Your task to perform on an android device: What's a good restaurant in San Diego? Image 0: 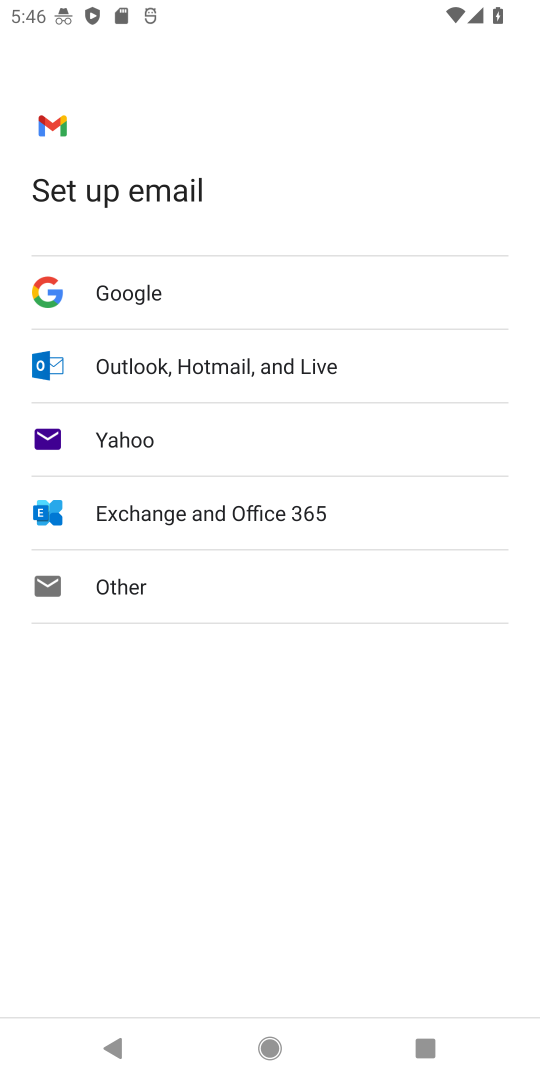
Step 0: press home button
Your task to perform on an android device: What's a good restaurant in San Diego? Image 1: 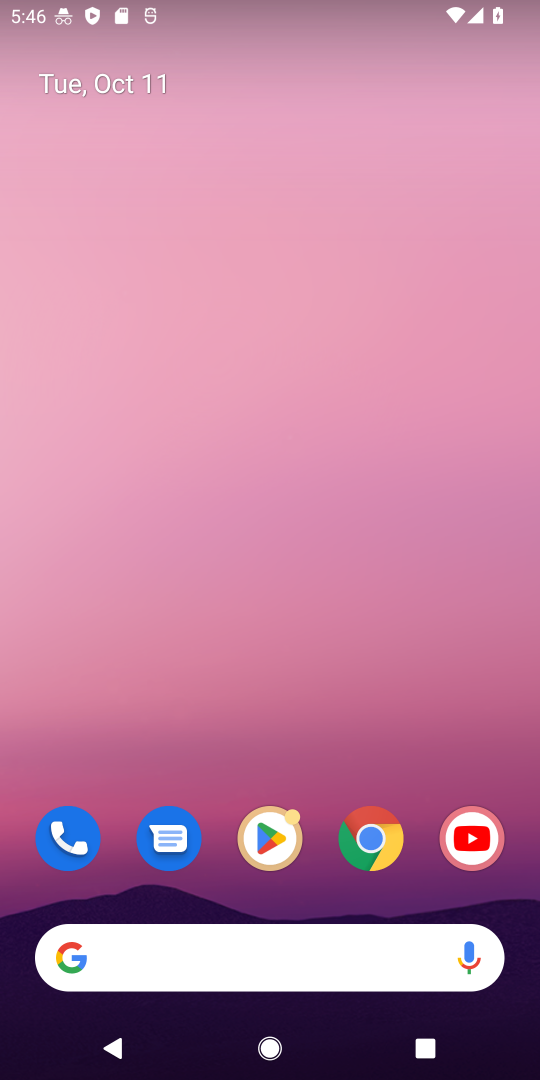
Step 1: click (377, 843)
Your task to perform on an android device: What's a good restaurant in San Diego? Image 2: 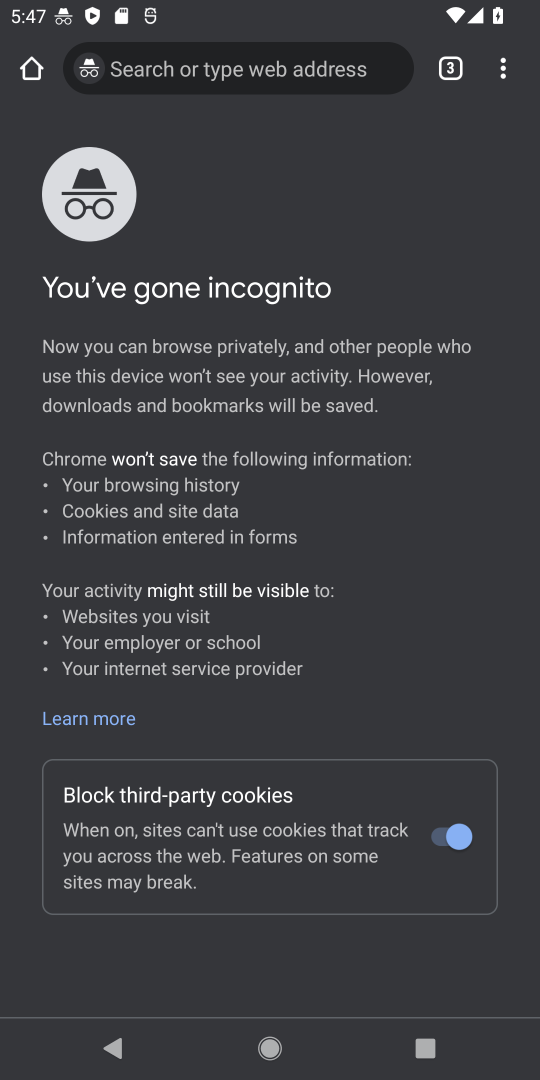
Step 2: click (455, 77)
Your task to perform on an android device: What's a good restaurant in San Diego? Image 3: 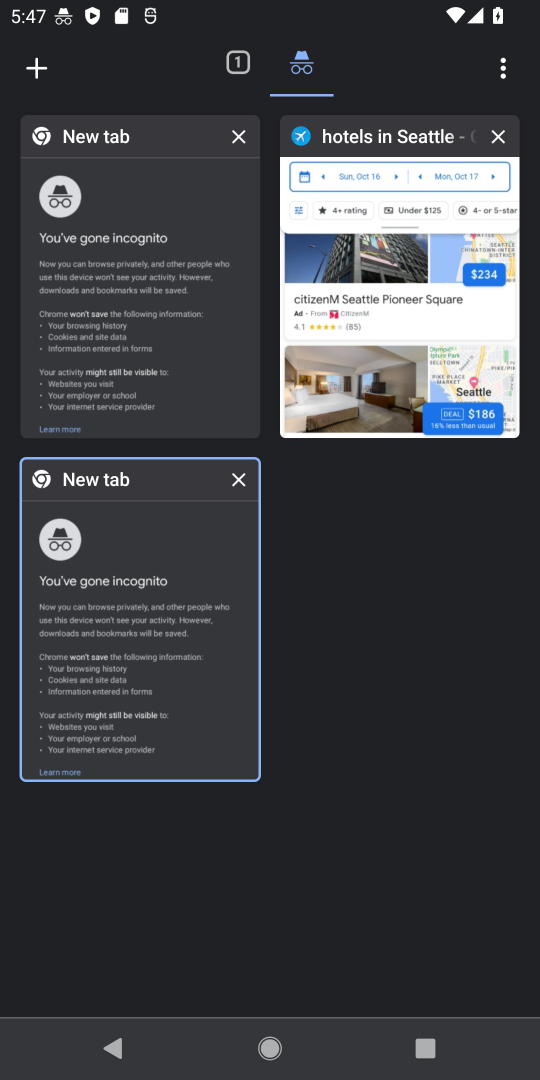
Step 3: click (238, 70)
Your task to perform on an android device: What's a good restaurant in San Diego? Image 4: 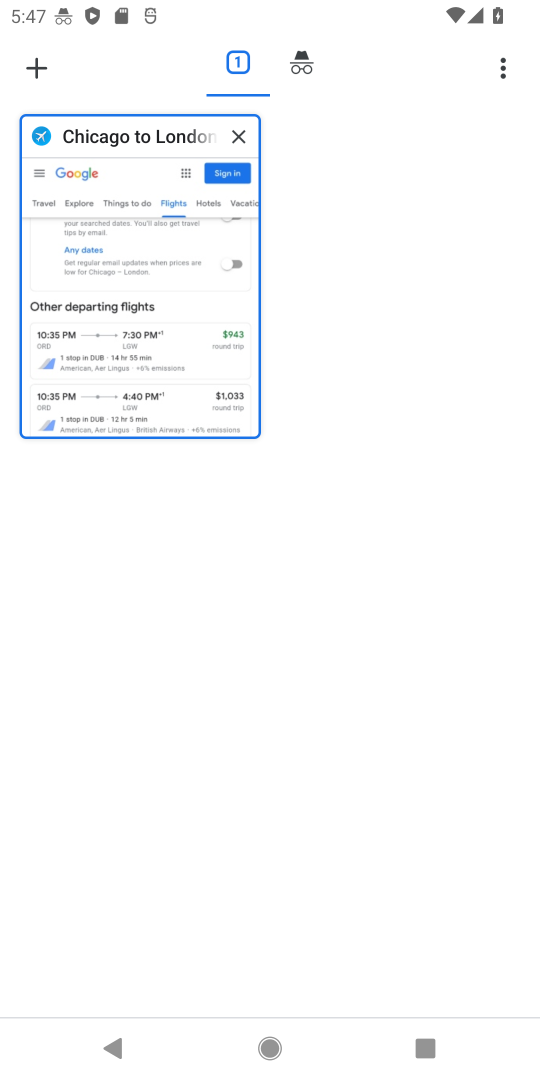
Step 4: click (163, 254)
Your task to perform on an android device: What's a good restaurant in San Diego? Image 5: 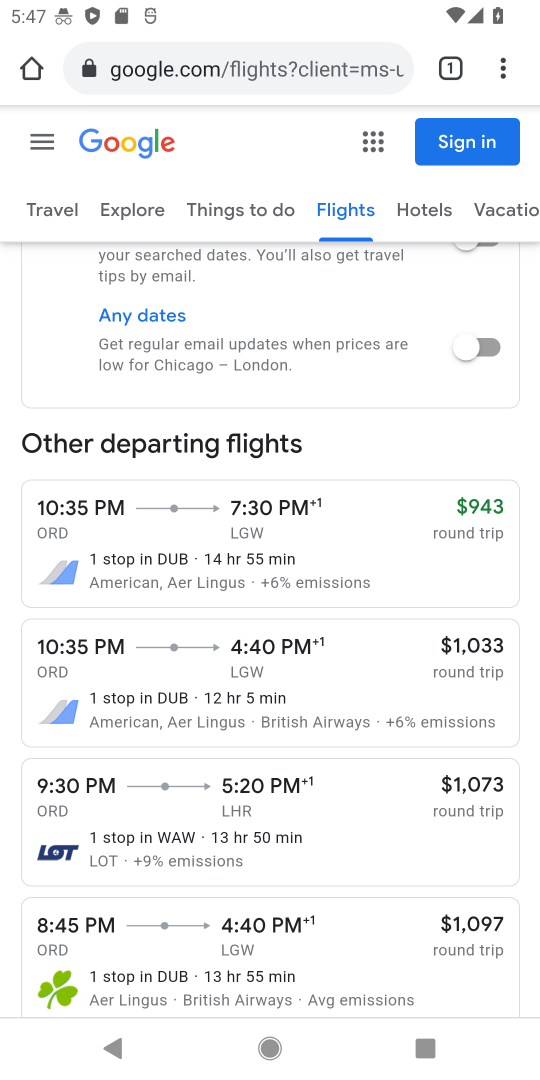
Step 5: click (257, 54)
Your task to perform on an android device: What's a good restaurant in San Diego? Image 6: 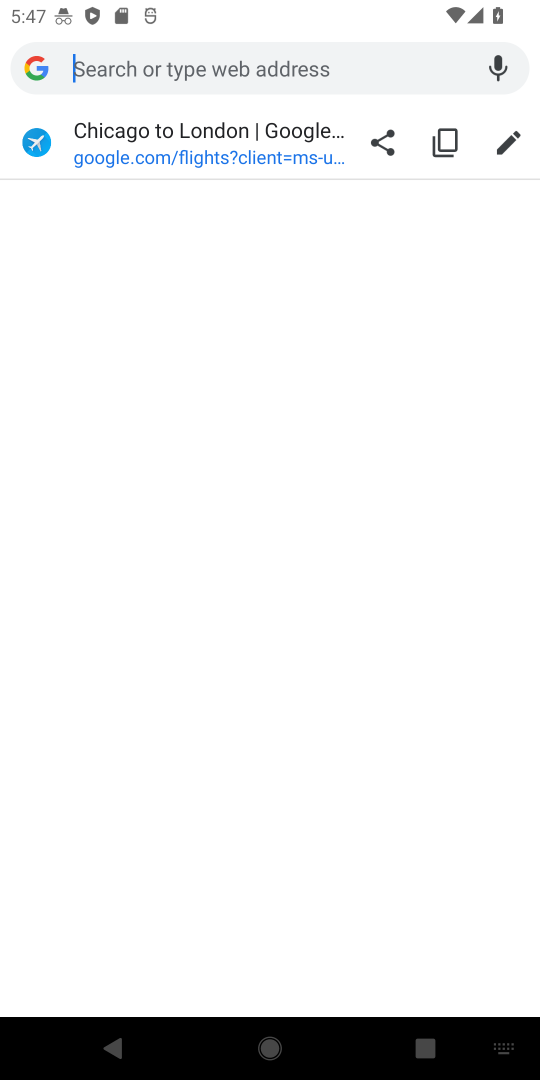
Step 6: type "good restaurant in San Diego"
Your task to perform on an android device: What's a good restaurant in San Diego? Image 7: 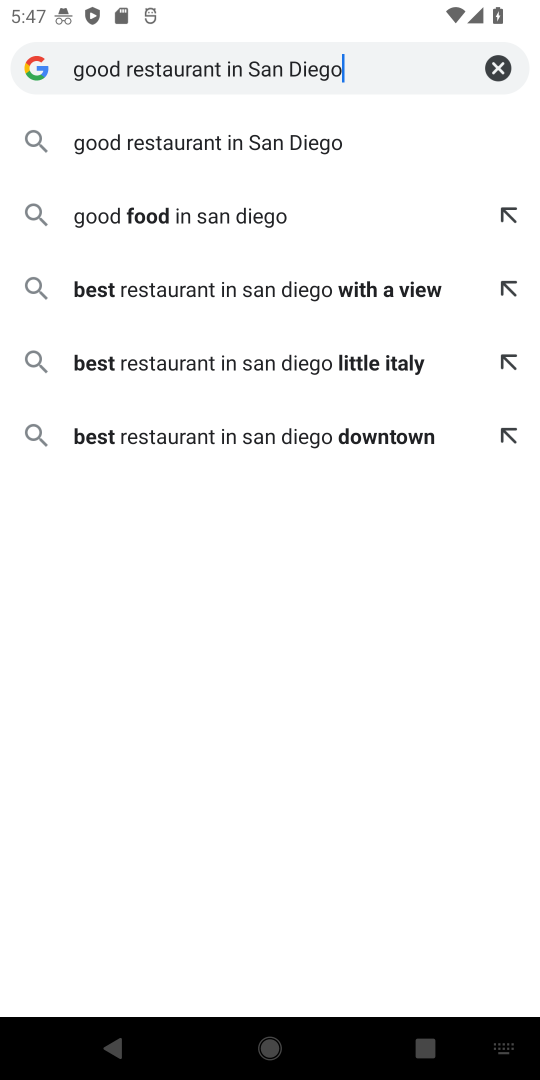
Step 7: click (297, 142)
Your task to perform on an android device: What's a good restaurant in San Diego? Image 8: 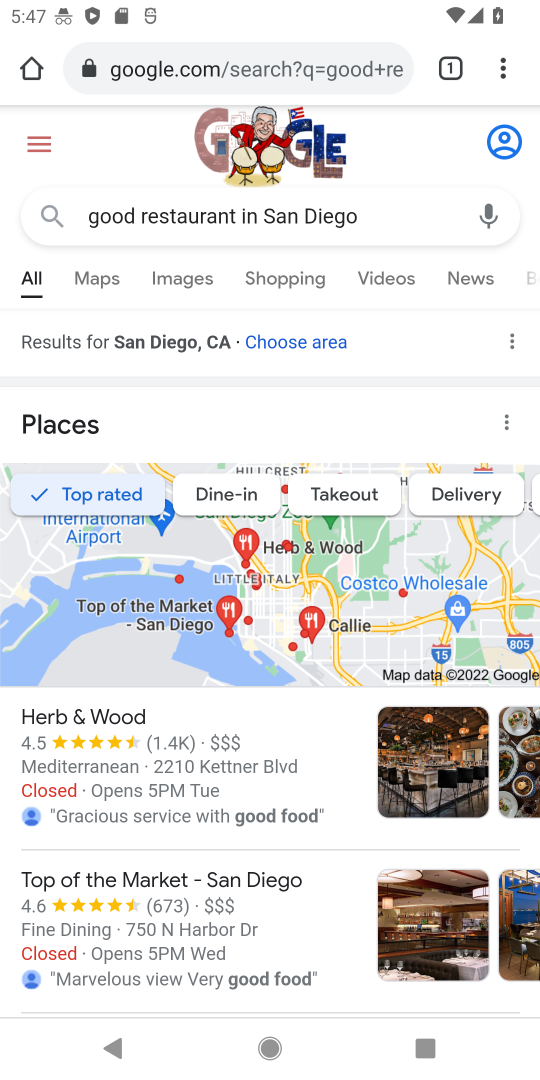
Step 8: drag from (278, 742) to (291, 188)
Your task to perform on an android device: What's a good restaurant in San Diego? Image 9: 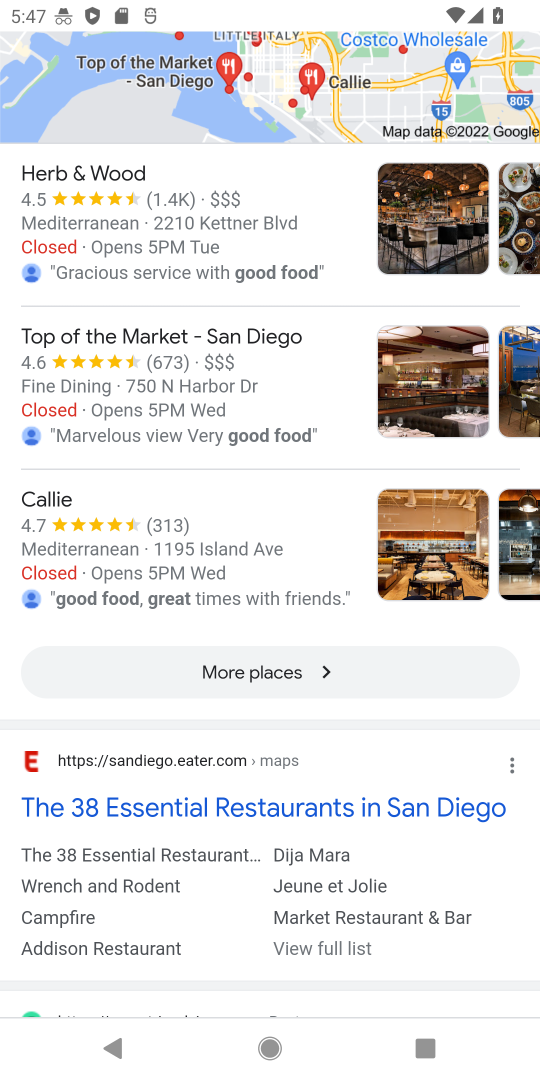
Step 9: click (245, 661)
Your task to perform on an android device: What's a good restaurant in San Diego? Image 10: 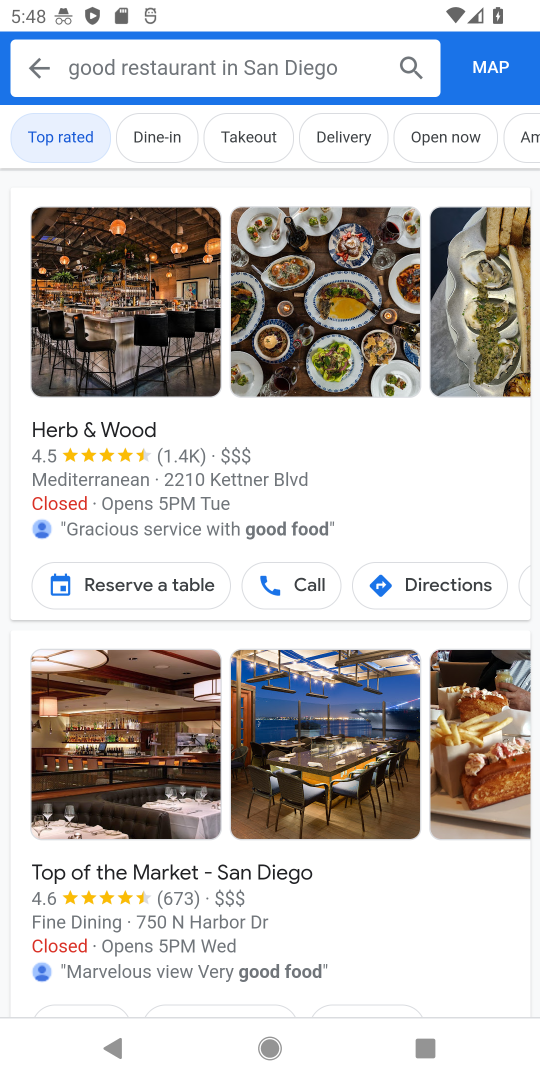
Step 10: task complete